Your task to perform on an android device: turn on wifi Image 0: 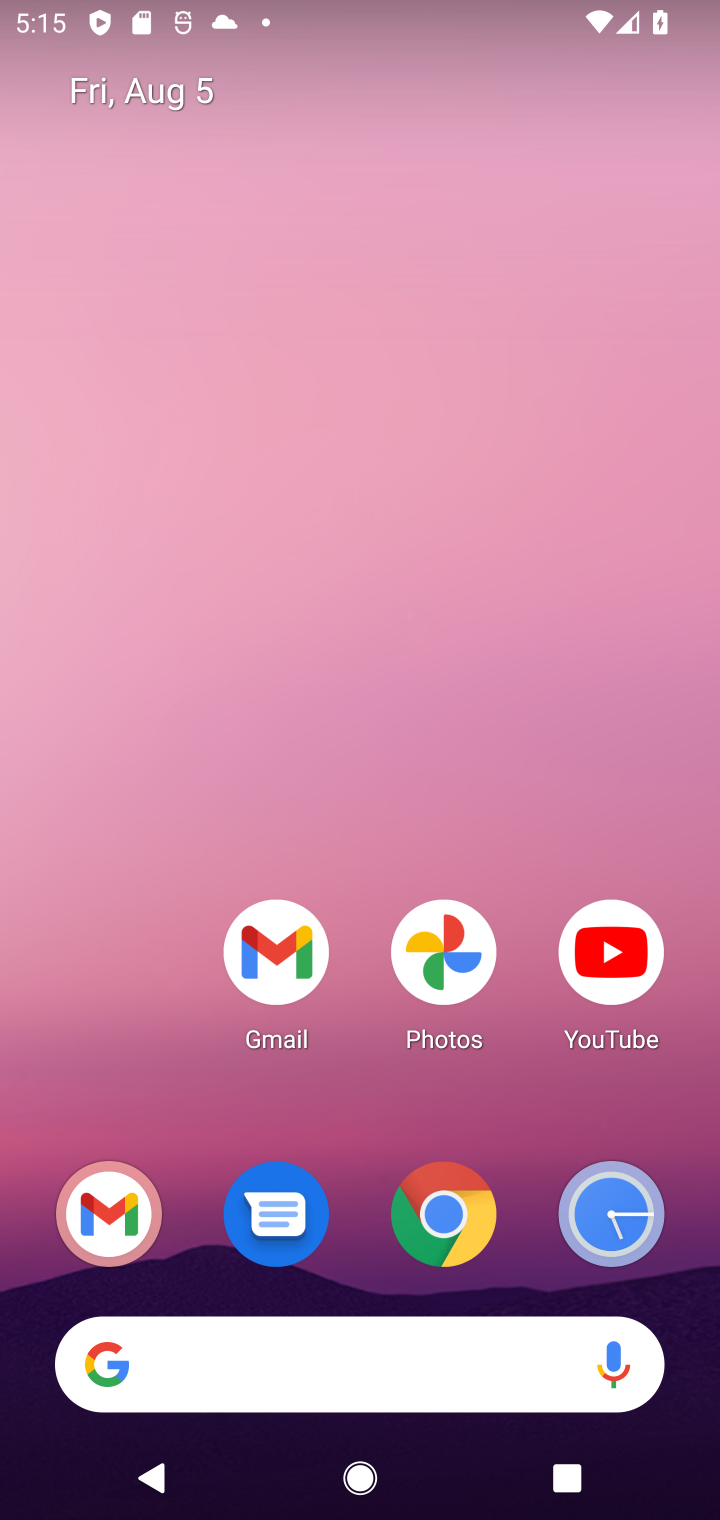
Step 0: drag from (176, 965) to (246, 1)
Your task to perform on an android device: turn on wifi Image 1: 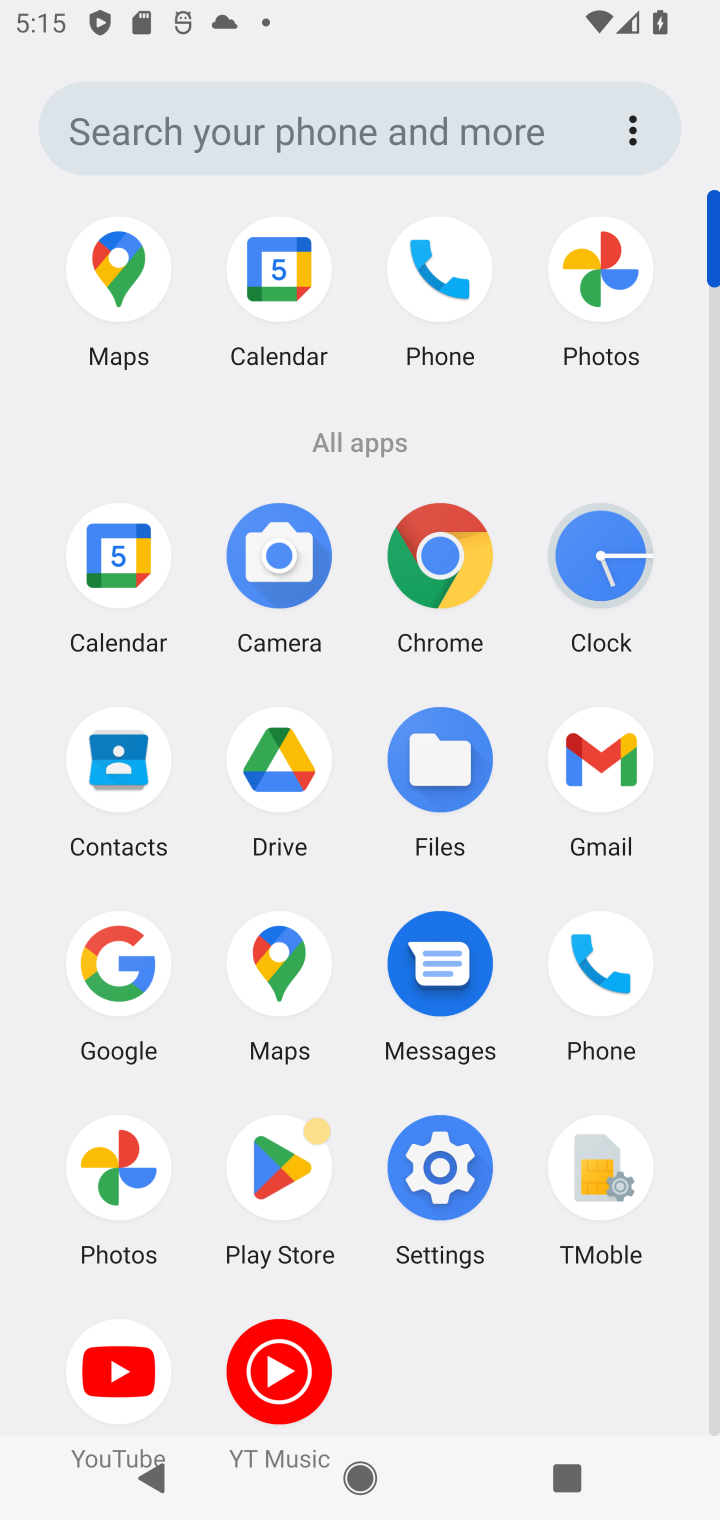
Step 1: click (436, 1158)
Your task to perform on an android device: turn on wifi Image 2: 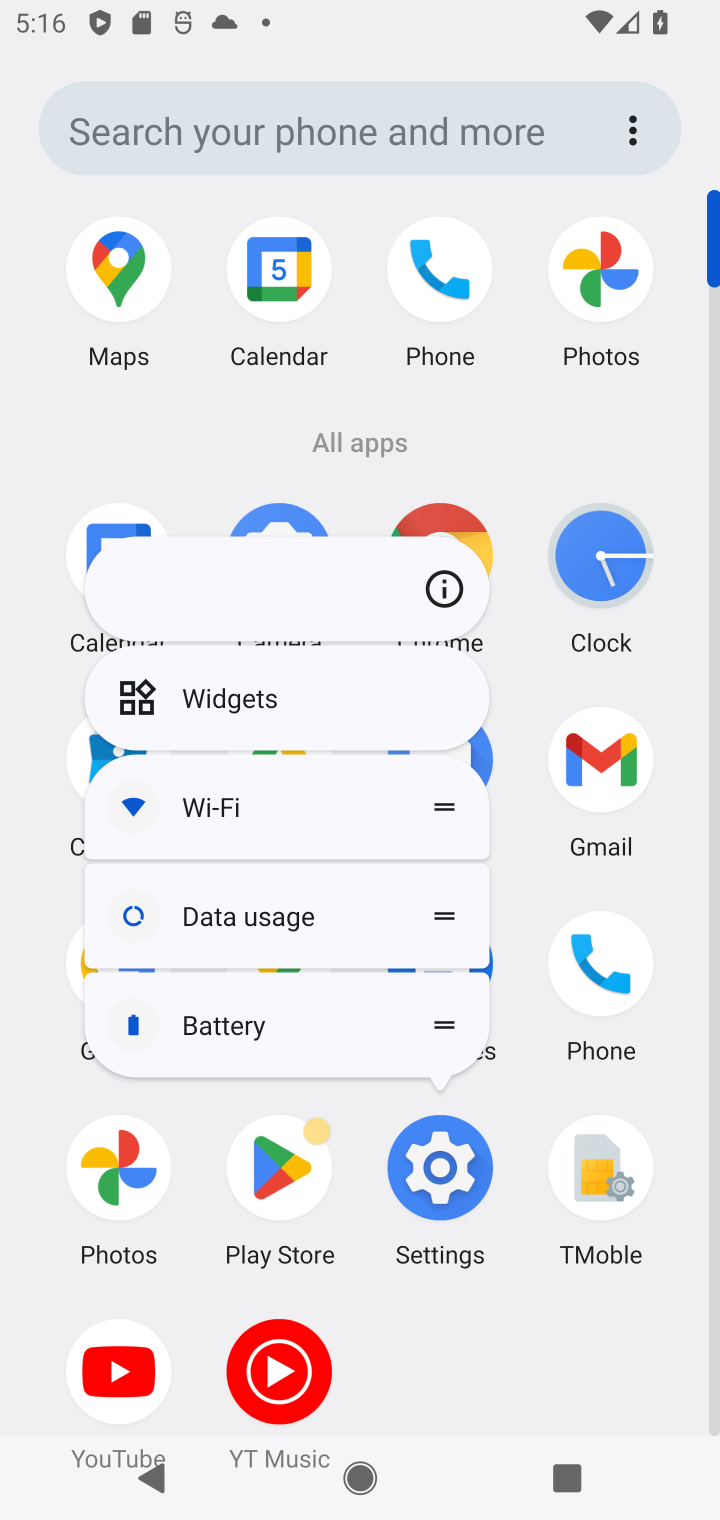
Step 2: click (436, 1139)
Your task to perform on an android device: turn on wifi Image 3: 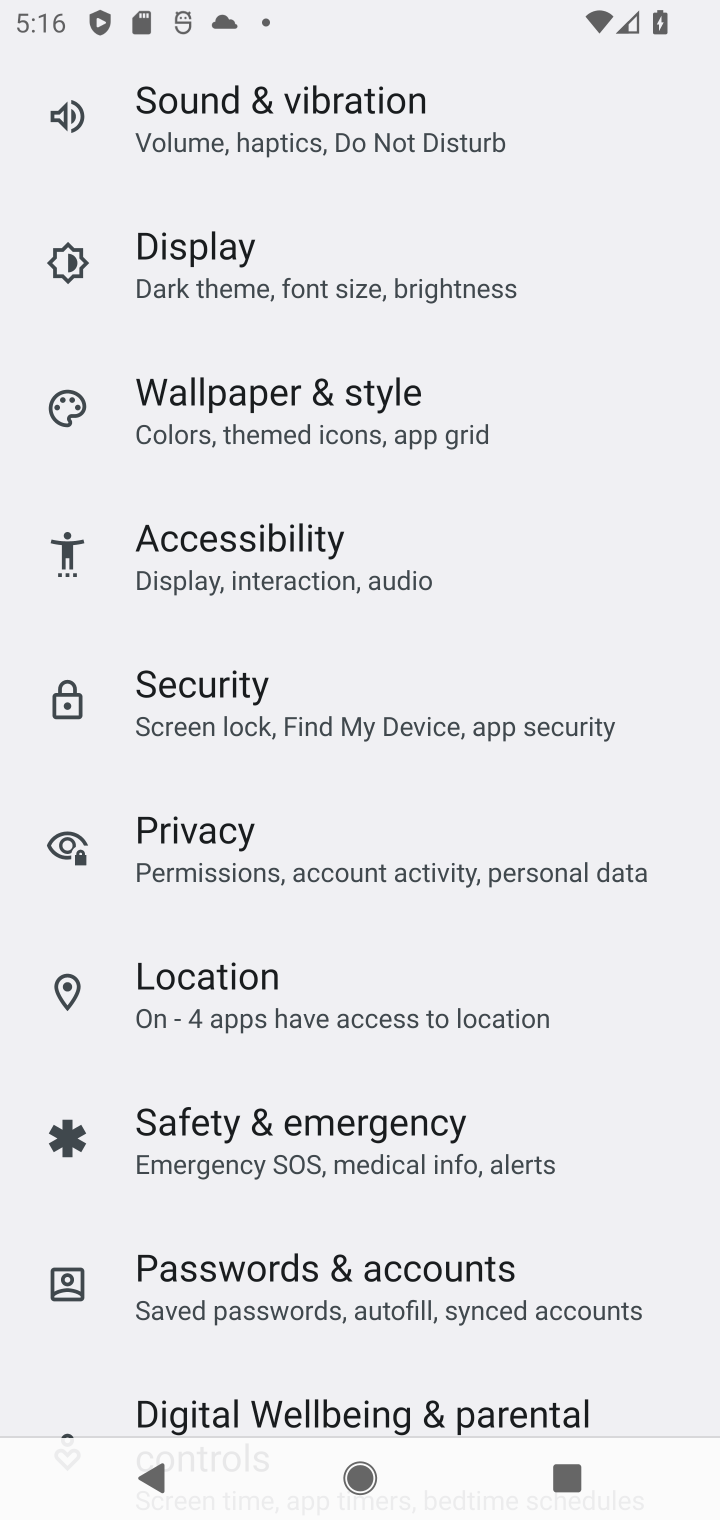
Step 3: drag from (422, 209) to (422, 1410)
Your task to perform on an android device: turn on wifi Image 4: 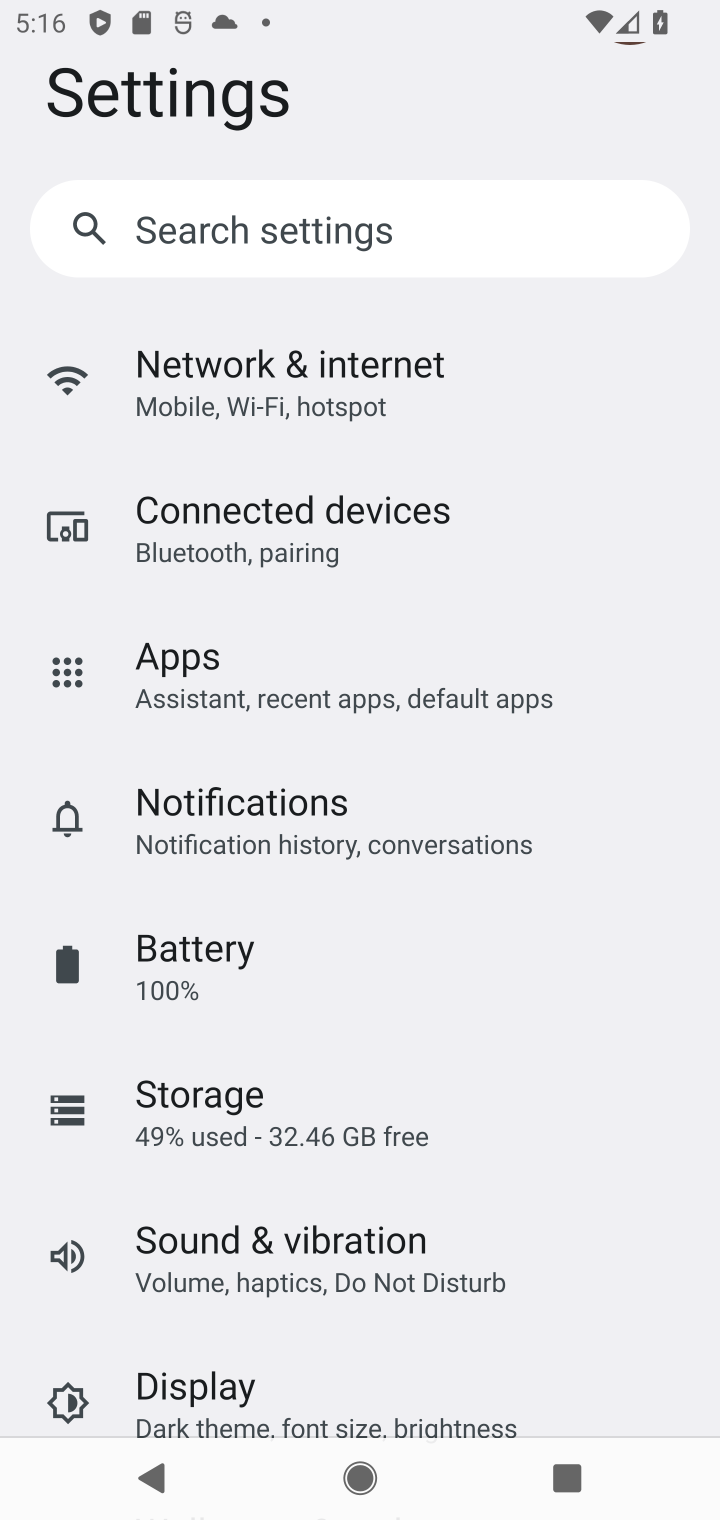
Step 4: click (317, 372)
Your task to perform on an android device: turn on wifi Image 5: 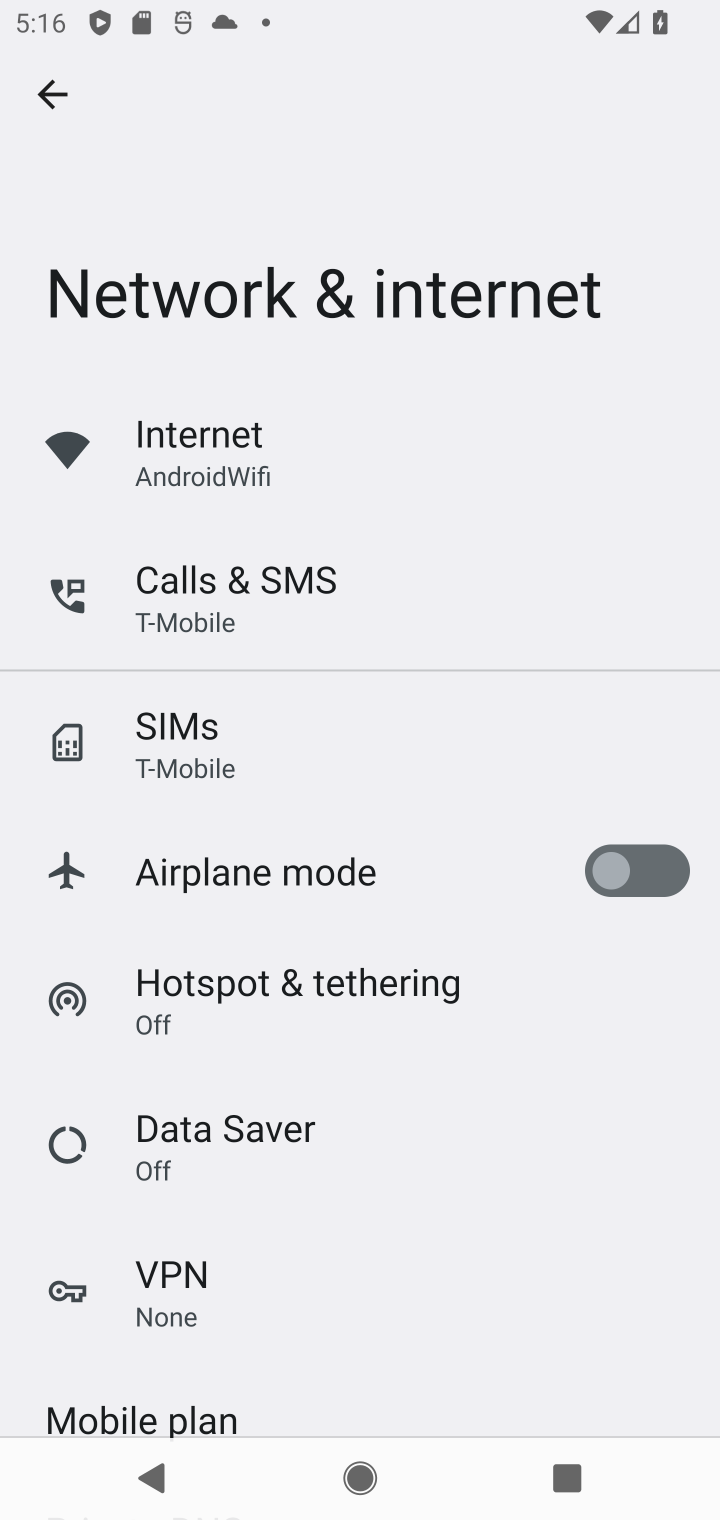
Step 5: click (243, 451)
Your task to perform on an android device: turn on wifi Image 6: 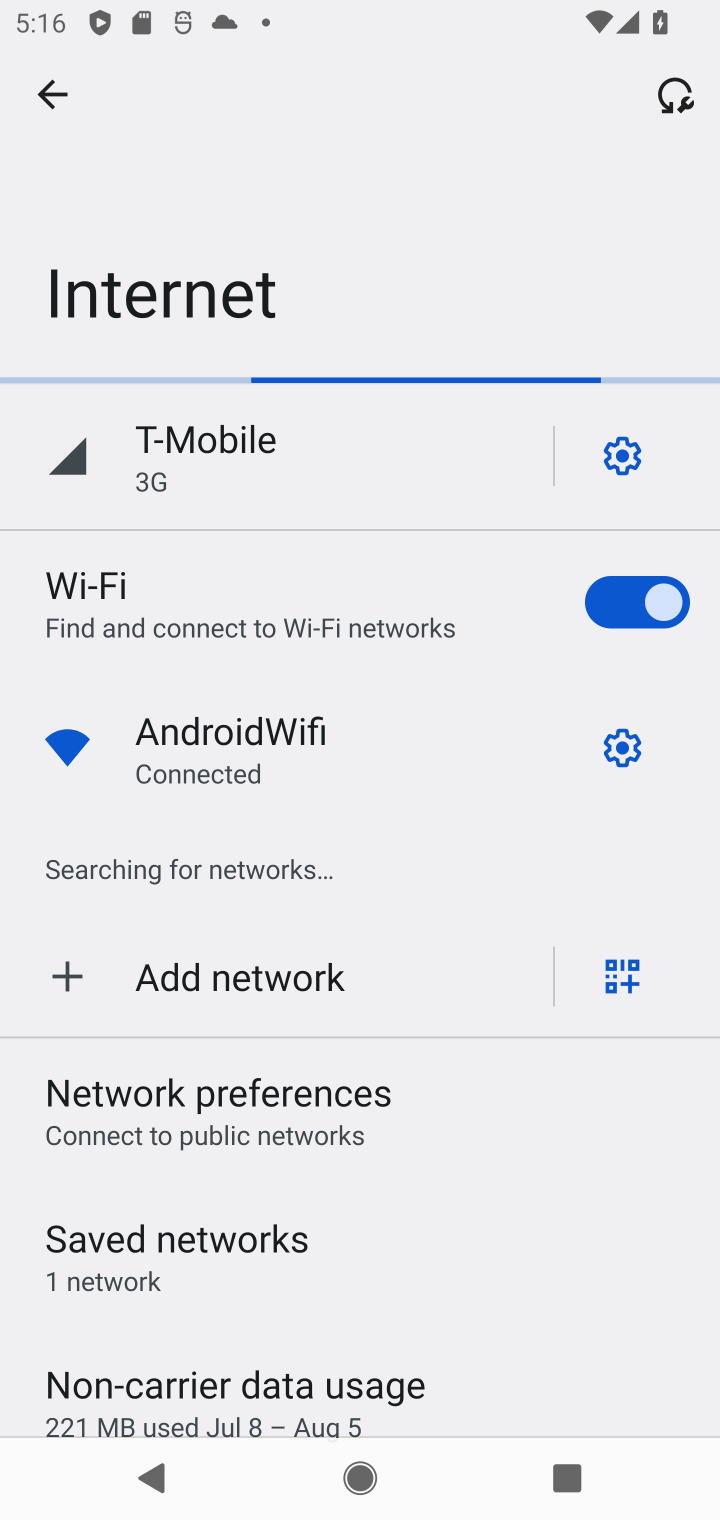
Step 6: task complete